Your task to perform on an android device: Open Yahoo.com Image 0: 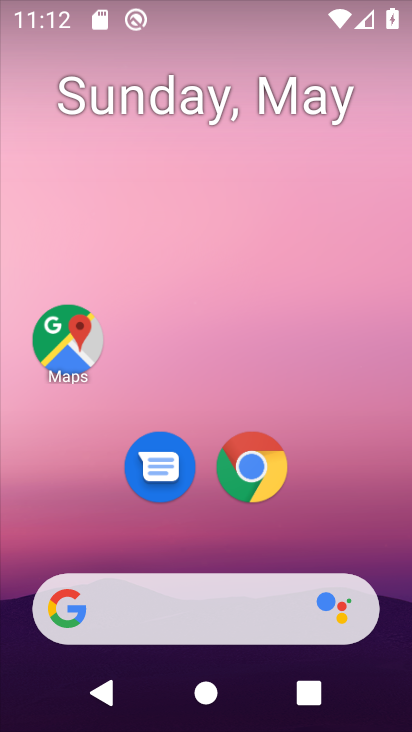
Step 0: click (250, 463)
Your task to perform on an android device: Open Yahoo.com Image 1: 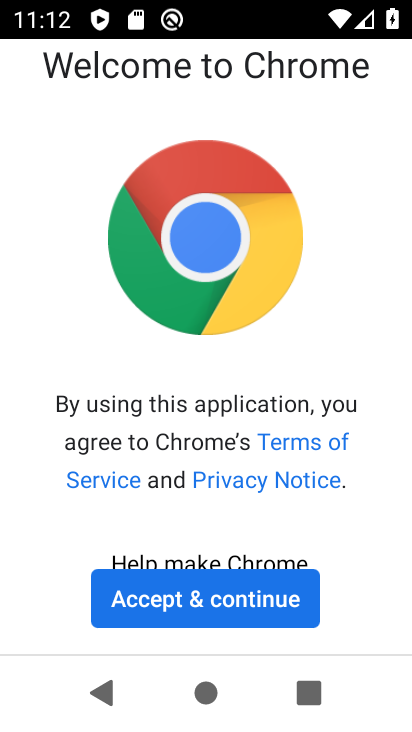
Step 1: click (192, 601)
Your task to perform on an android device: Open Yahoo.com Image 2: 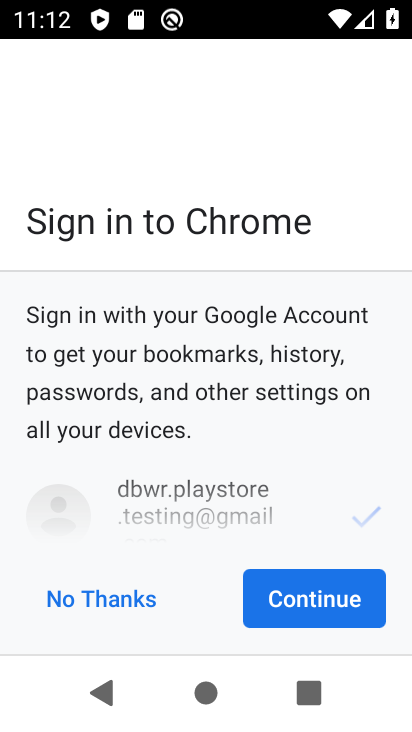
Step 2: click (319, 609)
Your task to perform on an android device: Open Yahoo.com Image 3: 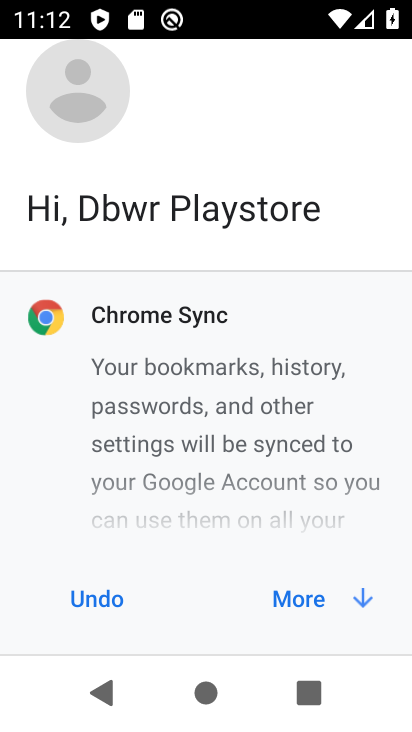
Step 3: click (307, 600)
Your task to perform on an android device: Open Yahoo.com Image 4: 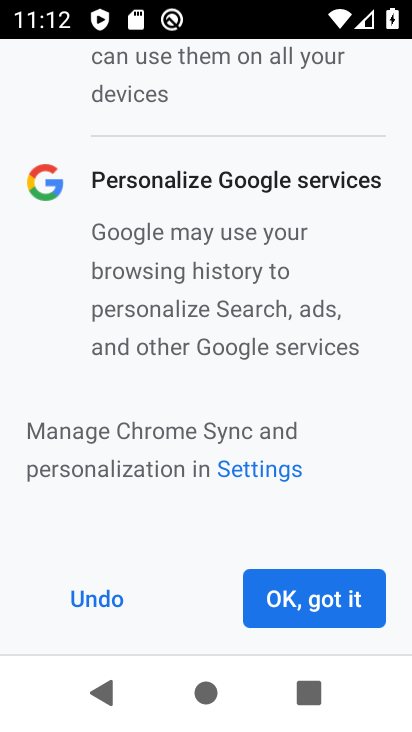
Step 4: click (297, 601)
Your task to perform on an android device: Open Yahoo.com Image 5: 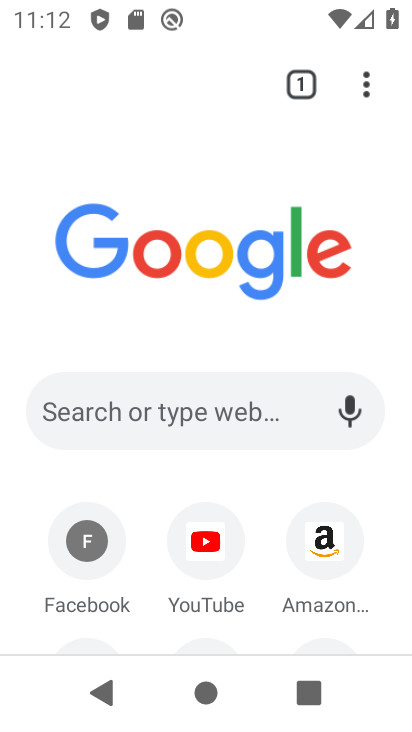
Step 5: click (145, 410)
Your task to perform on an android device: Open Yahoo.com Image 6: 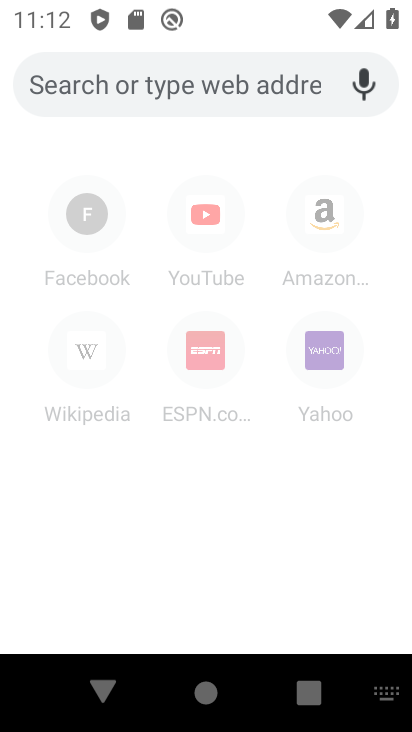
Step 6: type "Yahoo.com"
Your task to perform on an android device: Open Yahoo.com Image 7: 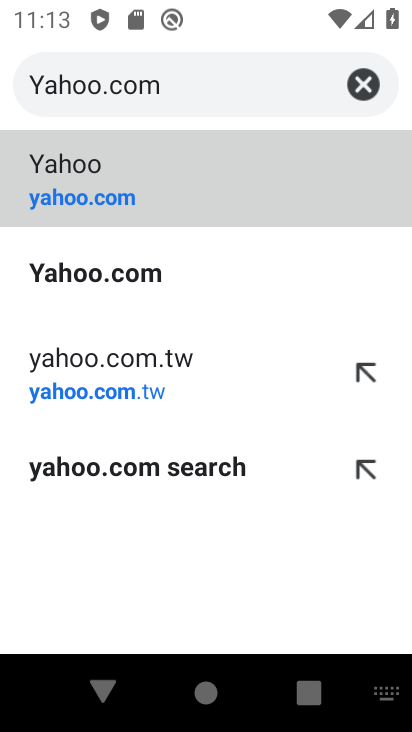
Step 7: click (56, 192)
Your task to perform on an android device: Open Yahoo.com Image 8: 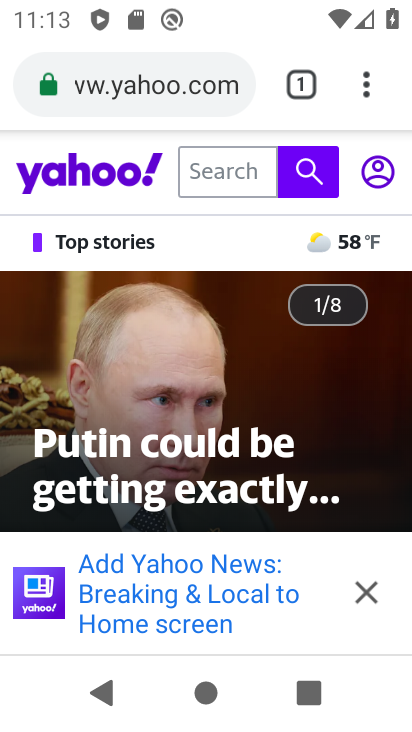
Step 8: task complete